Your task to perform on an android device: Show me popular videos on Youtube Image 0: 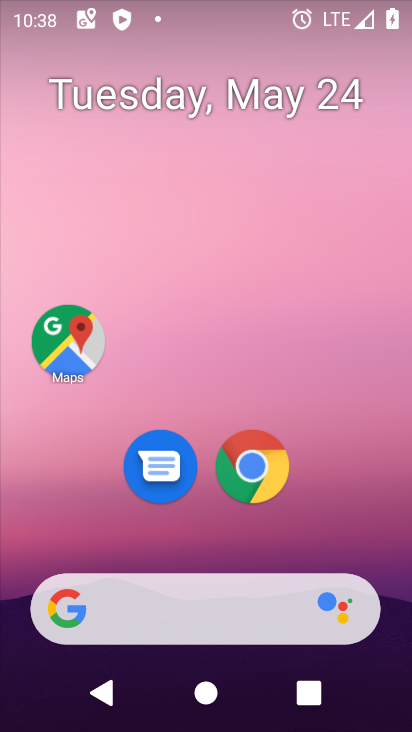
Step 0: drag from (381, 546) to (378, 217)
Your task to perform on an android device: Show me popular videos on Youtube Image 1: 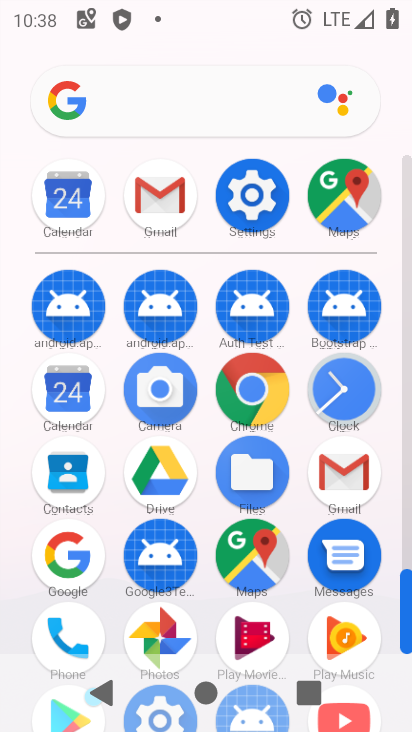
Step 1: drag from (386, 664) to (395, 449)
Your task to perform on an android device: Show me popular videos on Youtube Image 2: 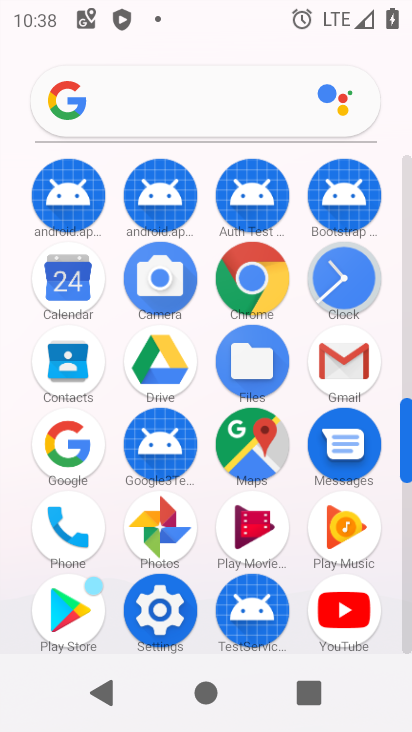
Step 2: click (350, 617)
Your task to perform on an android device: Show me popular videos on Youtube Image 3: 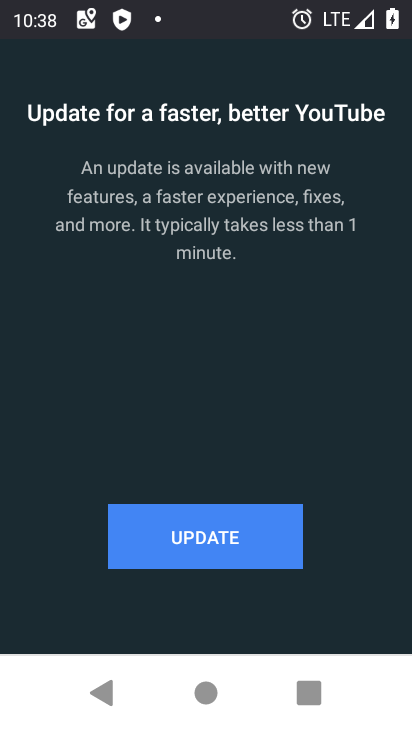
Step 3: click (223, 555)
Your task to perform on an android device: Show me popular videos on Youtube Image 4: 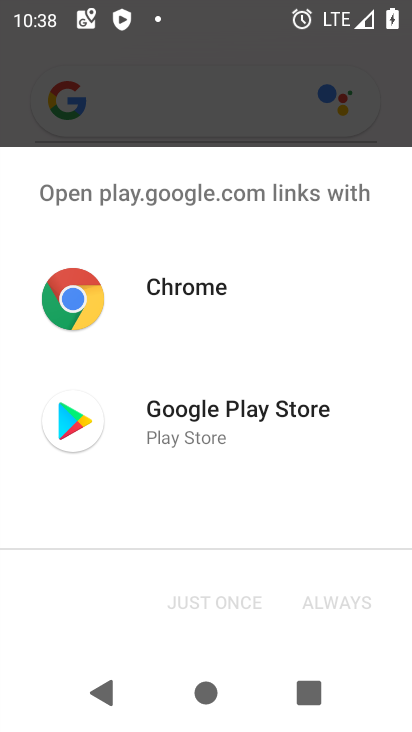
Step 4: click (217, 431)
Your task to perform on an android device: Show me popular videos on Youtube Image 5: 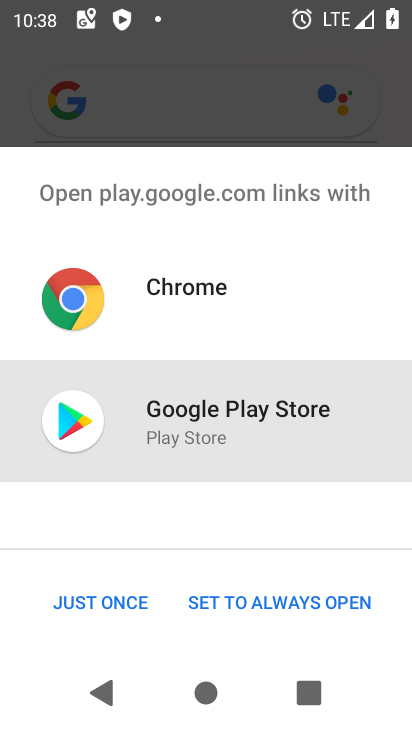
Step 5: click (108, 603)
Your task to perform on an android device: Show me popular videos on Youtube Image 6: 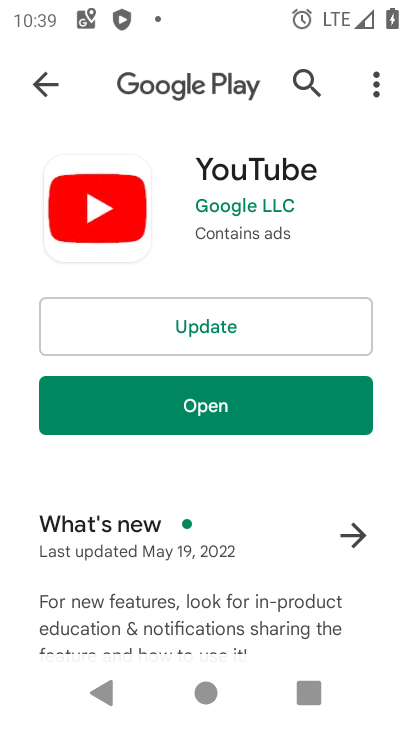
Step 6: click (253, 321)
Your task to perform on an android device: Show me popular videos on Youtube Image 7: 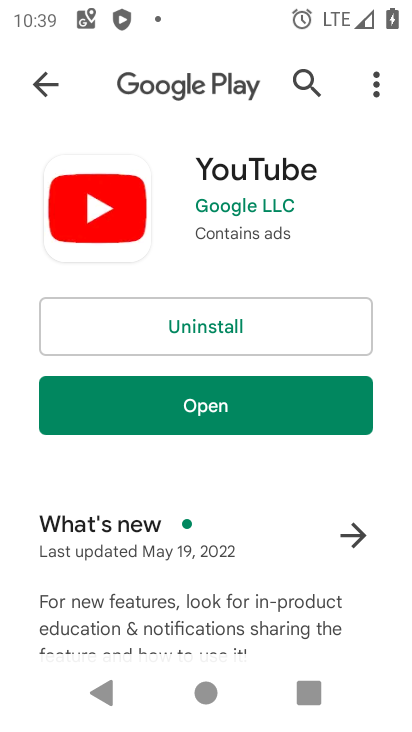
Step 7: click (268, 411)
Your task to perform on an android device: Show me popular videos on Youtube Image 8: 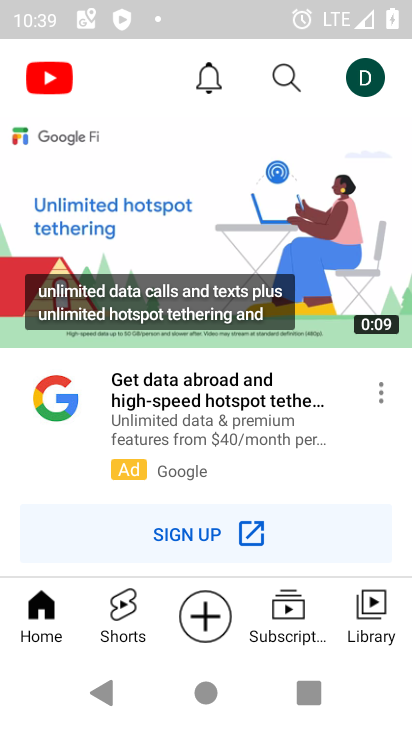
Step 8: task complete